Your task to perform on an android device: Go to eBay Image 0: 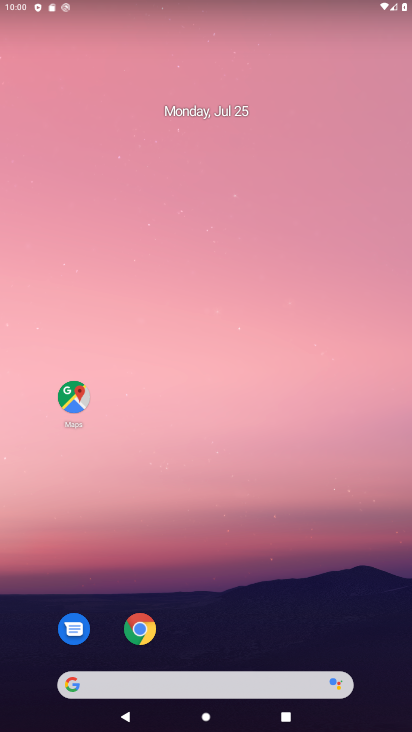
Step 0: click (142, 629)
Your task to perform on an android device: Go to eBay Image 1: 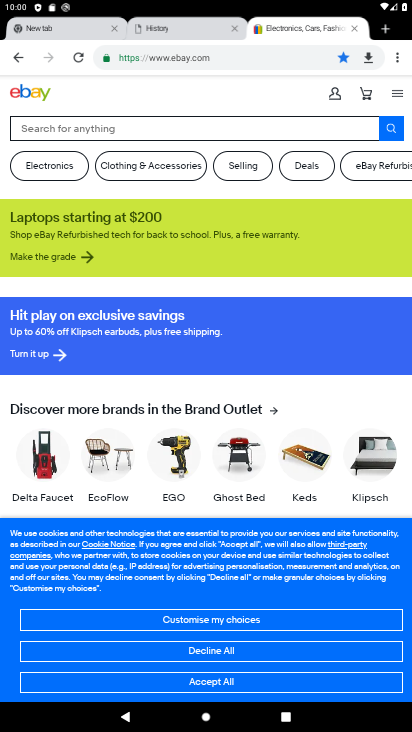
Step 1: task complete